Your task to perform on an android device: turn off data saver in the chrome app Image 0: 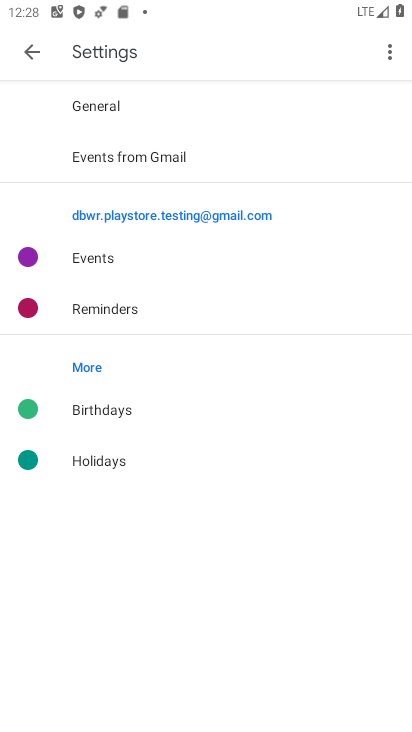
Step 0: press back button
Your task to perform on an android device: turn off data saver in the chrome app Image 1: 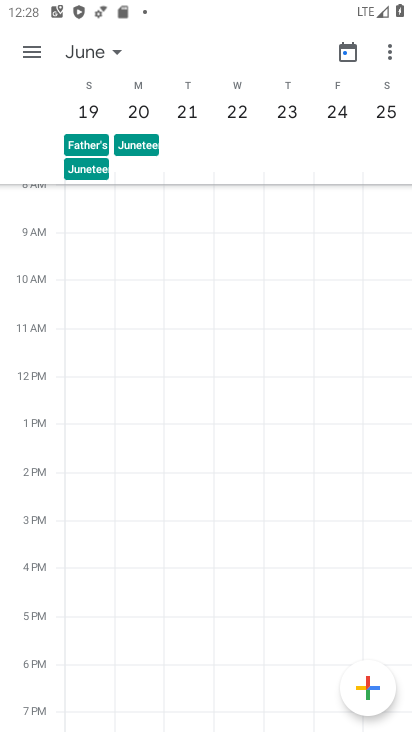
Step 1: press back button
Your task to perform on an android device: turn off data saver in the chrome app Image 2: 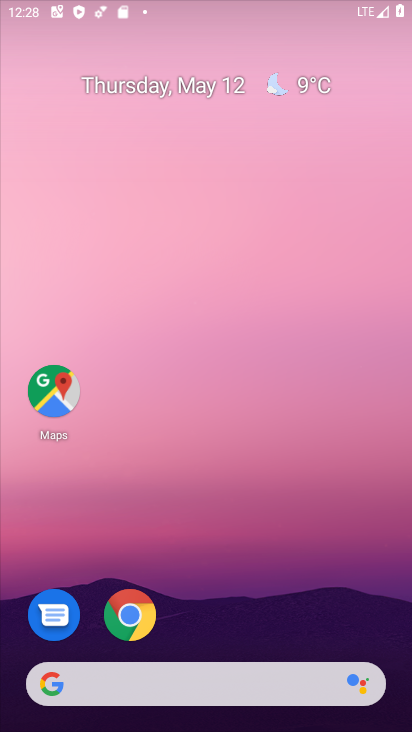
Step 2: press back button
Your task to perform on an android device: turn off data saver in the chrome app Image 3: 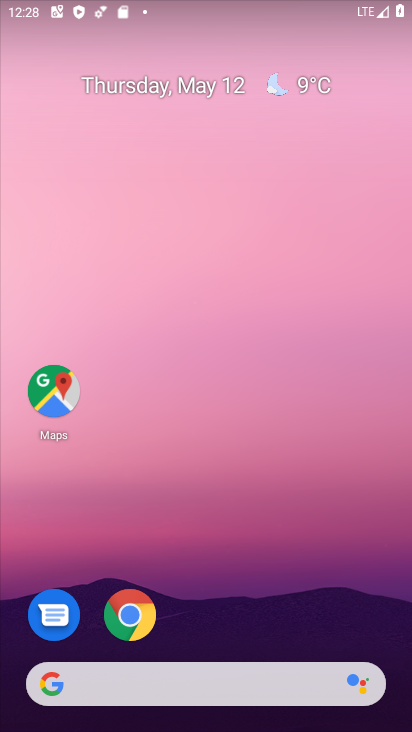
Step 3: click (130, 615)
Your task to perform on an android device: turn off data saver in the chrome app Image 4: 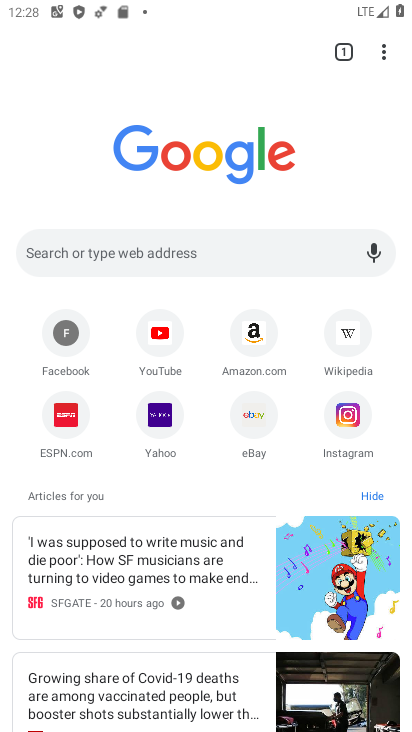
Step 4: click (383, 51)
Your task to perform on an android device: turn off data saver in the chrome app Image 5: 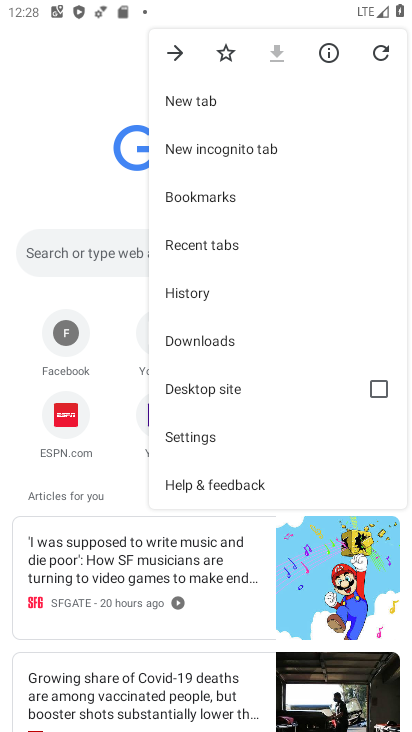
Step 5: click (186, 435)
Your task to perform on an android device: turn off data saver in the chrome app Image 6: 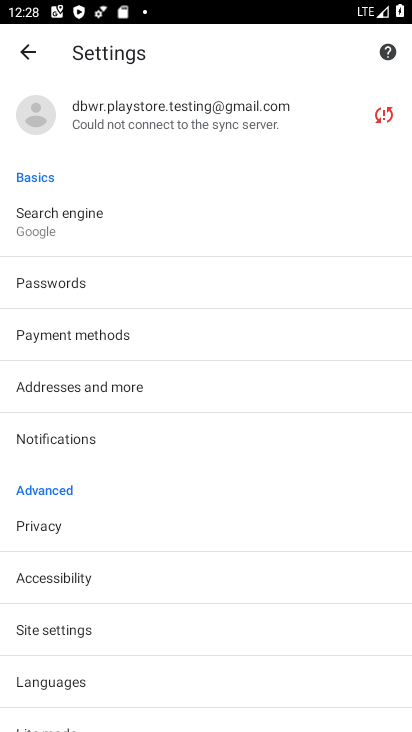
Step 6: drag from (114, 631) to (152, 538)
Your task to perform on an android device: turn off data saver in the chrome app Image 7: 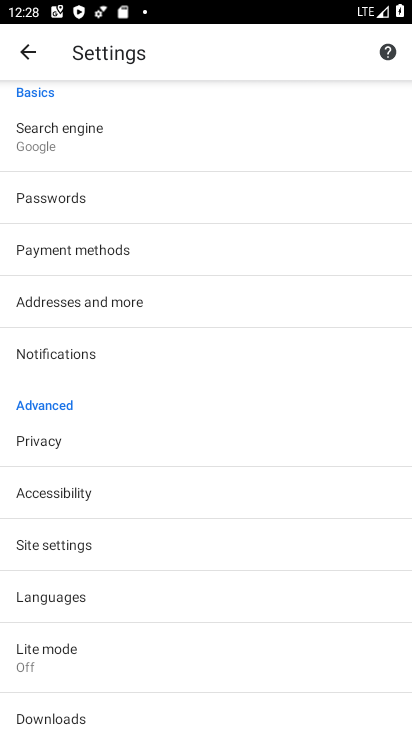
Step 7: click (53, 648)
Your task to perform on an android device: turn off data saver in the chrome app Image 8: 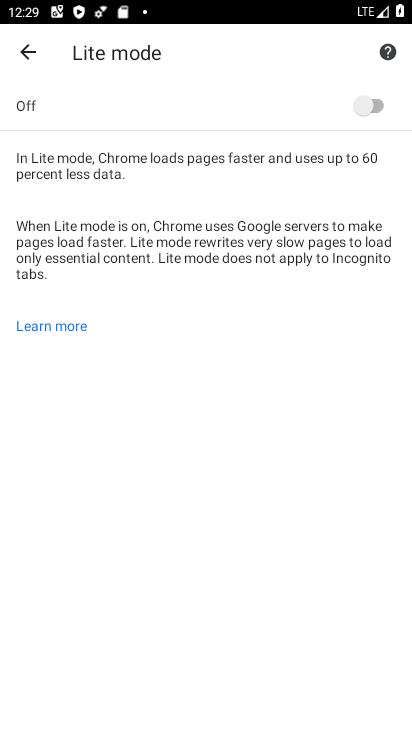
Step 8: task complete